Your task to perform on an android device: Is it going to rain today? Image 0: 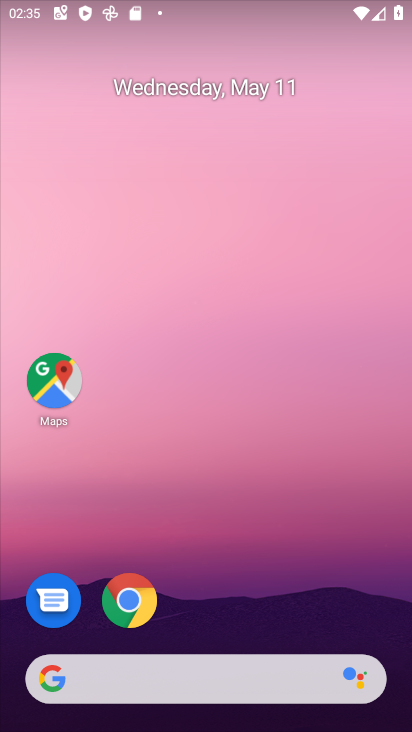
Step 0: drag from (2, 723) to (154, 730)
Your task to perform on an android device: Is it going to rain today? Image 1: 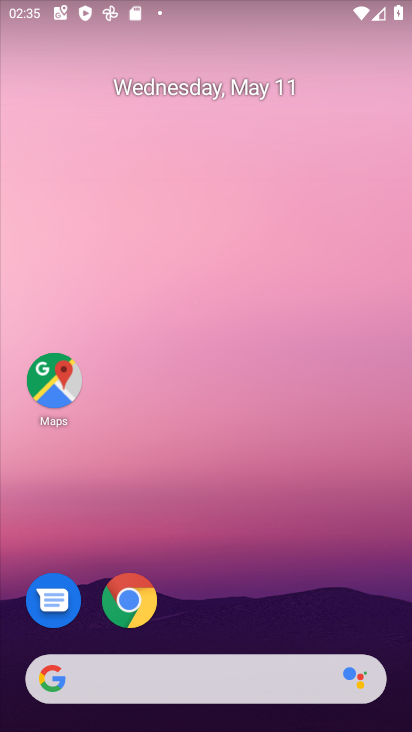
Step 1: click (189, 679)
Your task to perform on an android device: Is it going to rain today? Image 2: 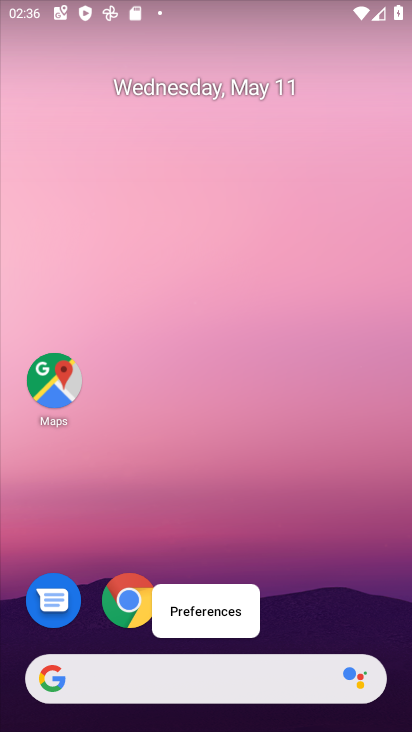
Step 2: type " Is it going to rain today?"
Your task to perform on an android device: Is it going to rain today? Image 3: 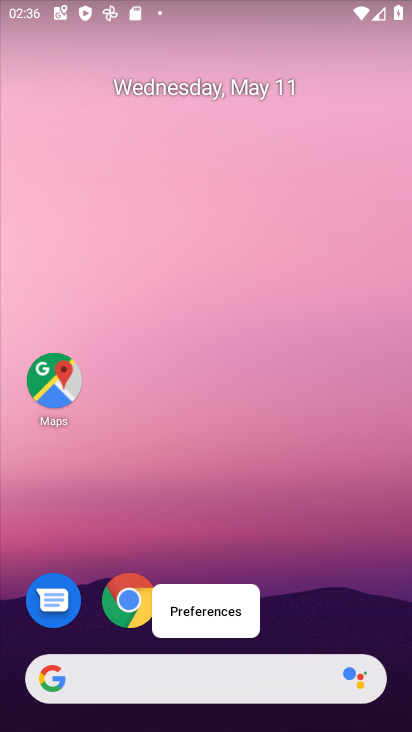
Step 3: drag from (193, 677) to (371, 226)
Your task to perform on an android device: Is it going to rain today? Image 4: 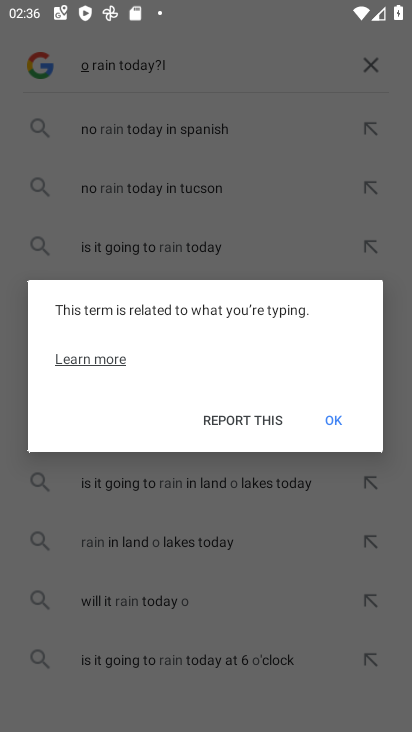
Step 4: click (339, 416)
Your task to perform on an android device: Is it going to rain today? Image 5: 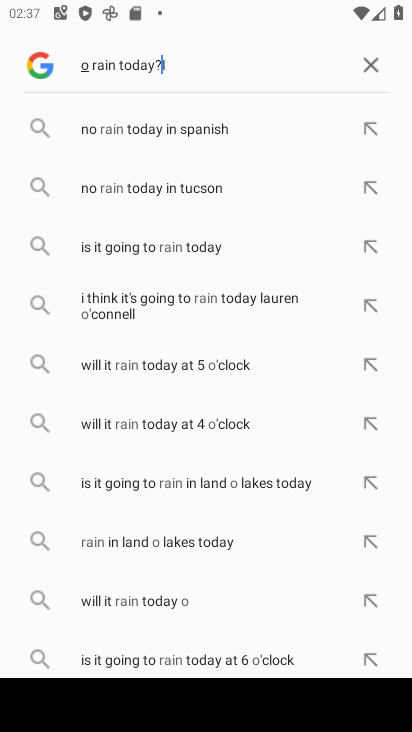
Step 5: click (179, 248)
Your task to perform on an android device: Is it going to rain today? Image 6: 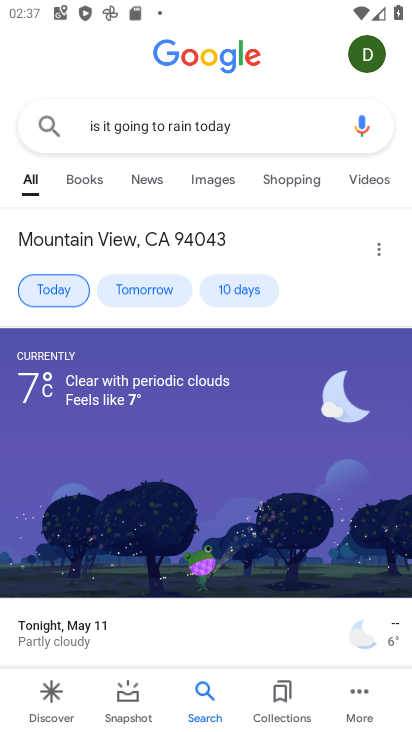
Step 6: task complete